Your task to perform on an android device: open chrome and create a bookmark for the current page Image 0: 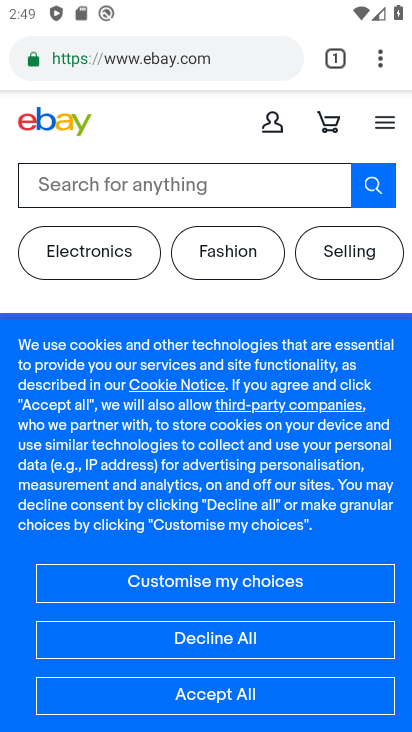
Step 0: press home button
Your task to perform on an android device: open chrome and create a bookmark for the current page Image 1: 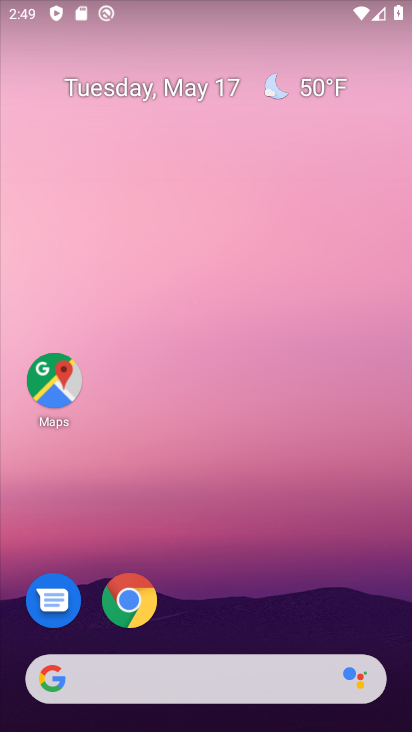
Step 1: drag from (277, 620) to (288, 180)
Your task to perform on an android device: open chrome and create a bookmark for the current page Image 2: 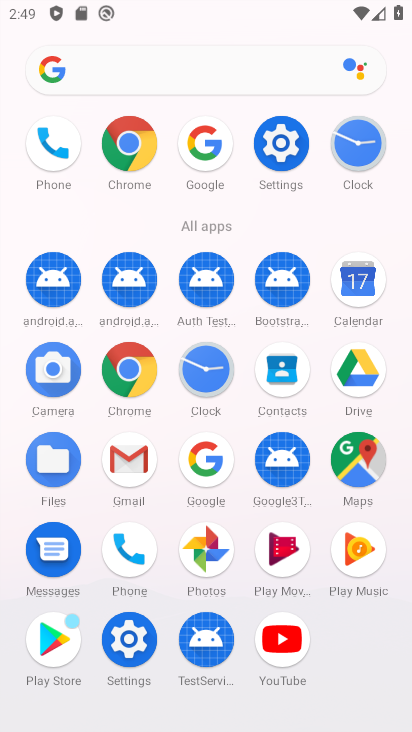
Step 2: click (141, 378)
Your task to perform on an android device: open chrome and create a bookmark for the current page Image 3: 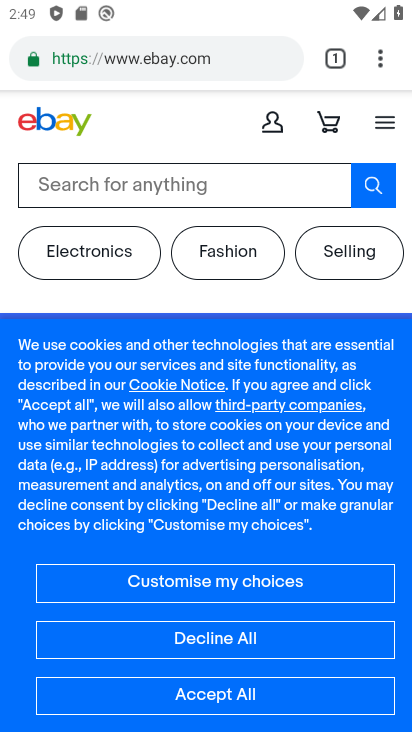
Step 3: task complete